Your task to perform on an android device: View the shopping cart on ebay.com. Search for razer blade on ebay.com, select the first entry, add it to the cart, then select checkout. Image 0: 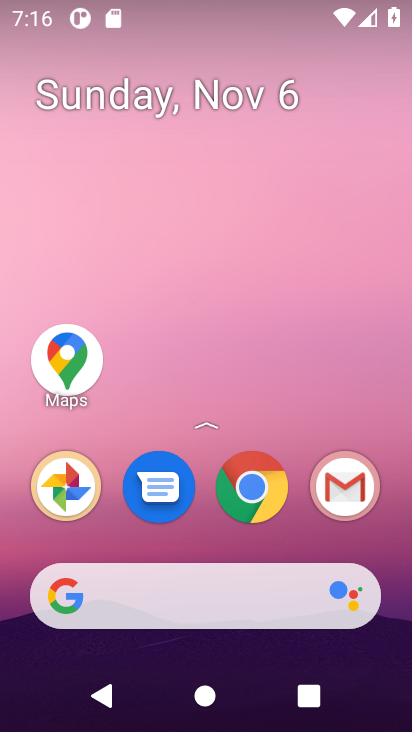
Step 0: click (255, 502)
Your task to perform on an android device: View the shopping cart on ebay.com. Search for razer blade on ebay.com, select the first entry, add it to the cart, then select checkout. Image 1: 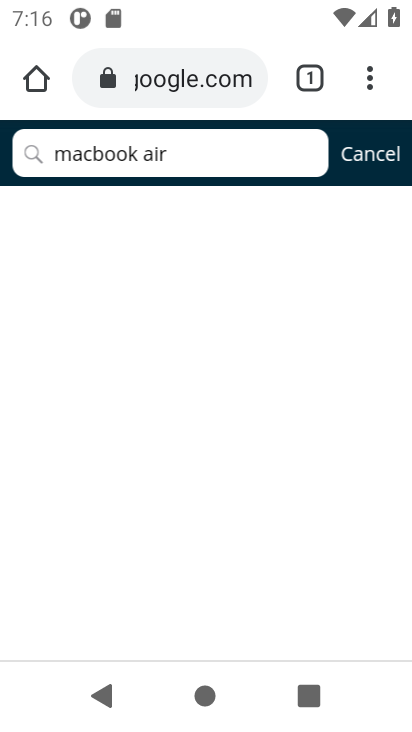
Step 1: click (118, 88)
Your task to perform on an android device: View the shopping cart on ebay.com. Search for razer blade on ebay.com, select the first entry, add it to the cart, then select checkout. Image 2: 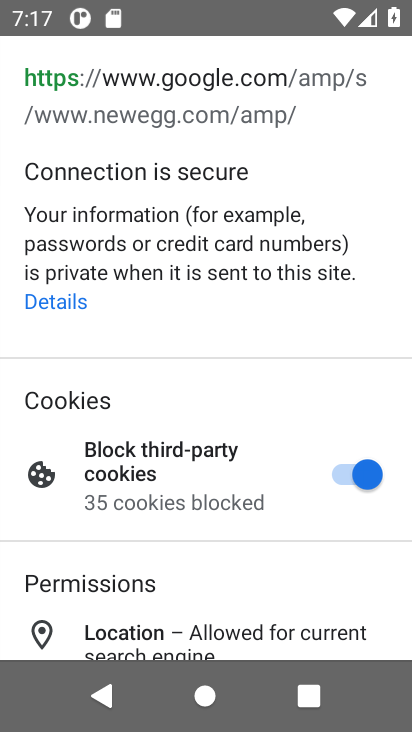
Step 2: press back button
Your task to perform on an android device: View the shopping cart on ebay.com. Search for razer blade on ebay.com, select the first entry, add it to the cart, then select checkout. Image 3: 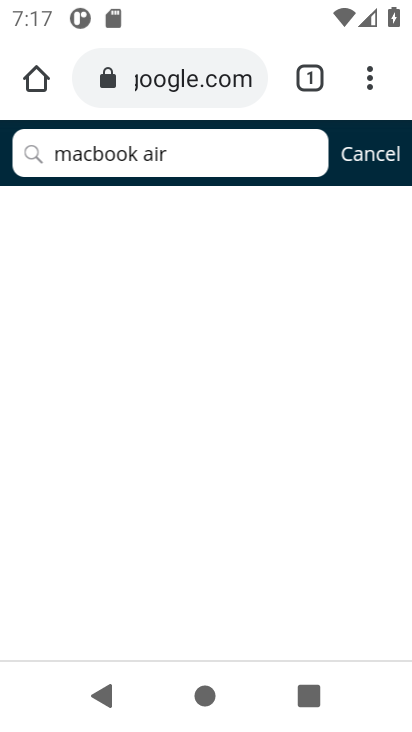
Step 3: click (241, 71)
Your task to perform on an android device: View the shopping cart on ebay.com. Search for razer blade on ebay.com, select the first entry, add it to the cart, then select checkout. Image 4: 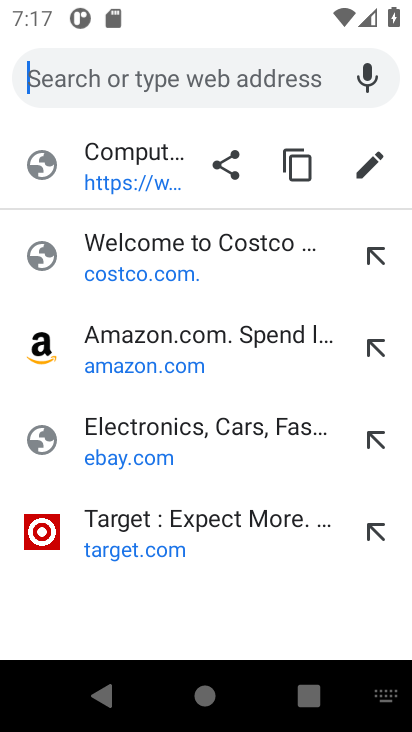
Step 4: click (91, 460)
Your task to perform on an android device: View the shopping cart on ebay.com. Search for razer blade on ebay.com, select the first entry, add it to the cart, then select checkout. Image 5: 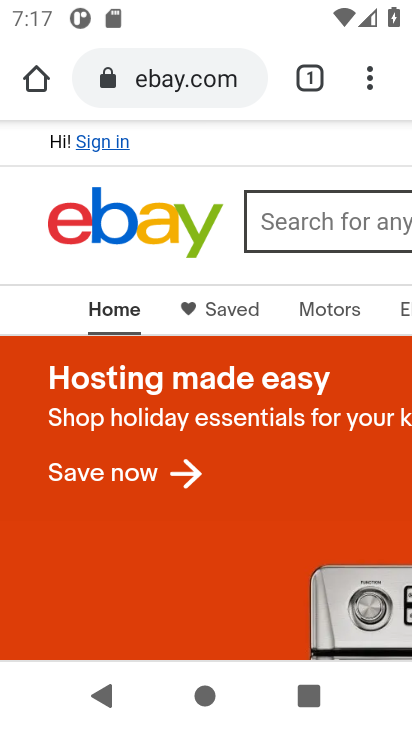
Step 5: click (278, 209)
Your task to perform on an android device: View the shopping cart on ebay.com. Search for razer blade on ebay.com, select the first entry, add it to the cart, then select checkout. Image 6: 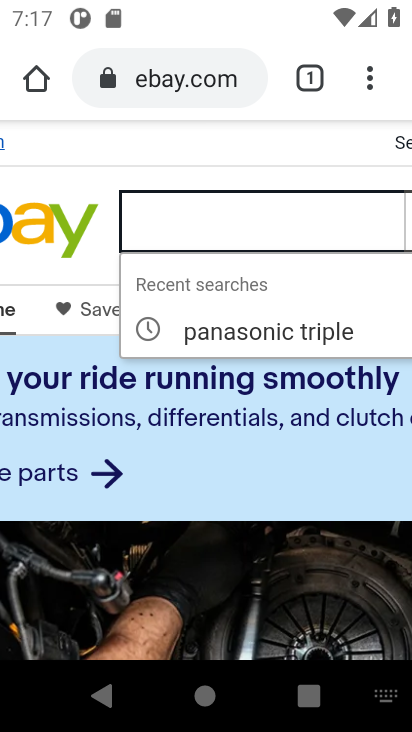
Step 6: drag from (348, 162) to (21, 133)
Your task to perform on an android device: View the shopping cart on ebay.com. Search for razer blade on ebay.com, select the first entry, add it to the cart, then select checkout. Image 7: 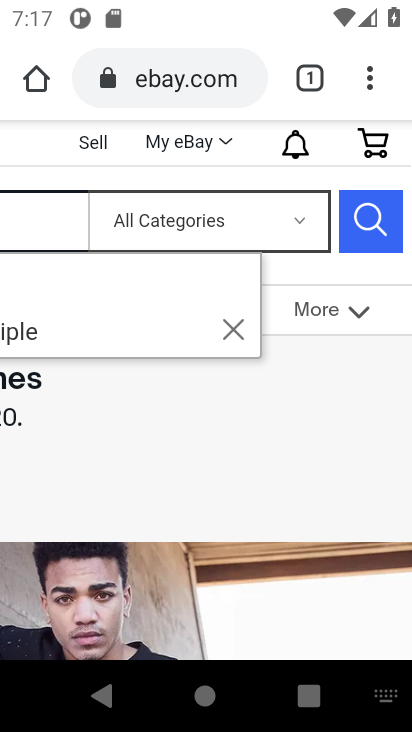
Step 7: click (365, 154)
Your task to perform on an android device: View the shopping cart on ebay.com. Search for razer blade on ebay.com, select the first entry, add it to the cart, then select checkout. Image 8: 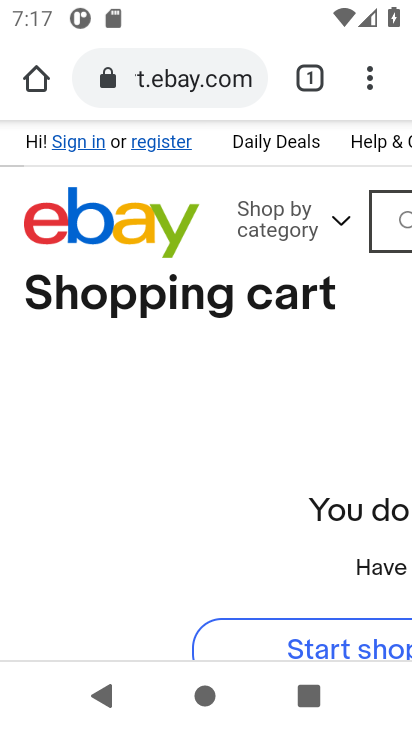
Step 8: drag from (381, 396) to (42, 419)
Your task to perform on an android device: View the shopping cart on ebay.com. Search for razer blade on ebay.com, select the first entry, add it to the cart, then select checkout. Image 9: 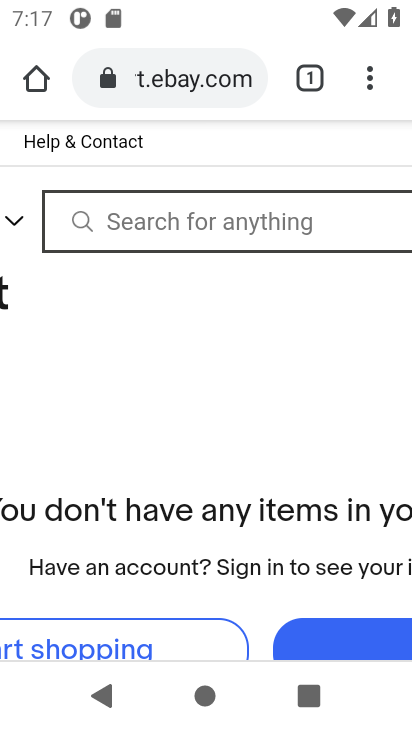
Step 9: drag from (317, 386) to (200, 377)
Your task to perform on an android device: View the shopping cart on ebay.com. Search for razer blade on ebay.com, select the first entry, add it to the cart, then select checkout. Image 10: 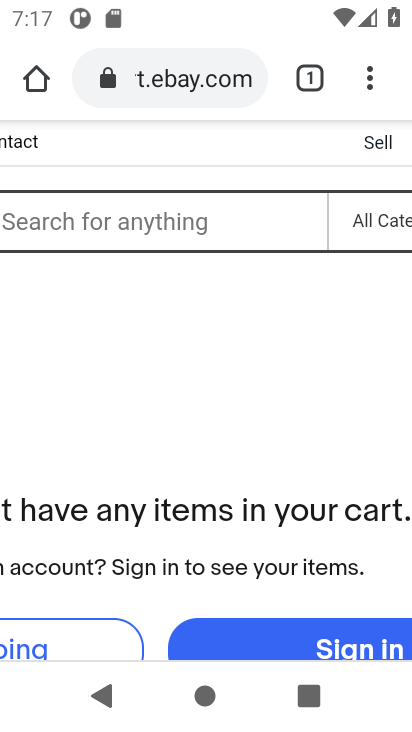
Step 10: click (118, 233)
Your task to perform on an android device: View the shopping cart on ebay.com. Search for razer blade on ebay.com, select the first entry, add it to the cart, then select checkout. Image 11: 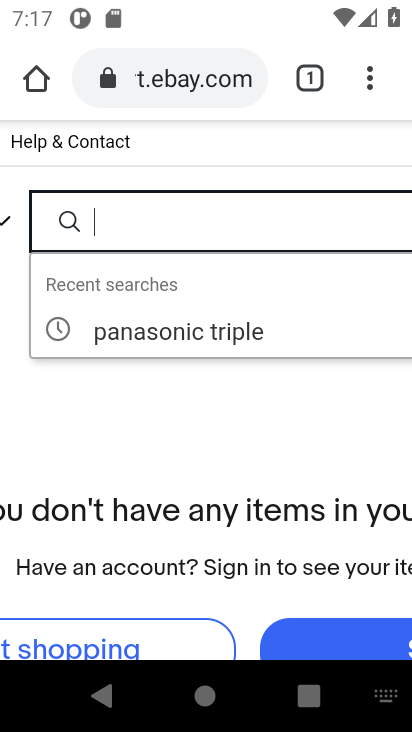
Step 11: type "razer blade"
Your task to perform on an android device: View the shopping cart on ebay.com. Search for razer blade on ebay.com, select the first entry, add it to the cart, then select checkout. Image 12: 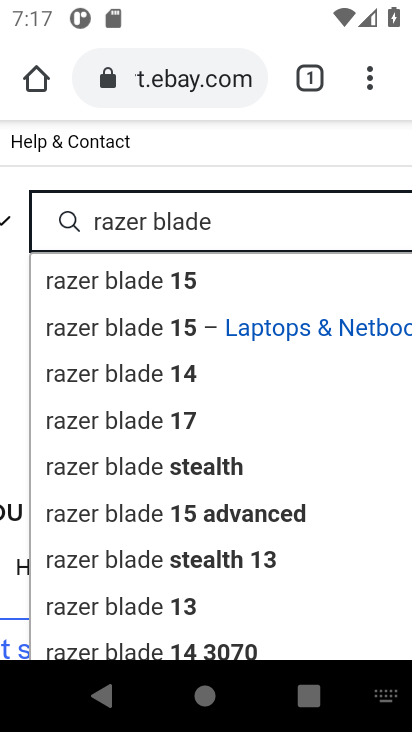
Step 12: drag from (337, 159) to (59, 173)
Your task to perform on an android device: View the shopping cart on ebay.com. Search for razer blade on ebay.com, select the first entry, add it to the cart, then select checkout. Image 13: 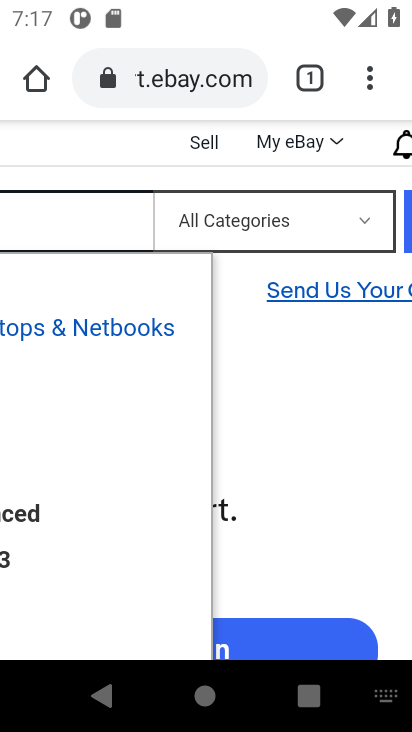
Step 13: drag from (343, 181) to (100, 170)
Your task to perform on an android device: View the shopping cart on ebay.com. Search for razer blade on ebay.com, select the first entry, add it to the cart, then select checkout. Image 14: 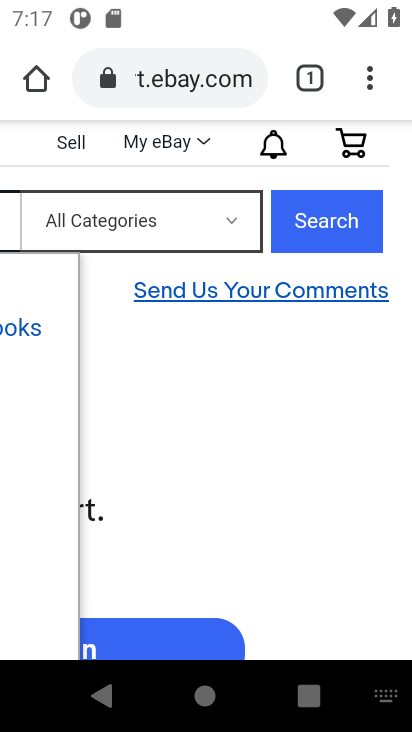
Step 14: click (359, 217)
Your task to perform on an android device: View the shopping cart on ebay.com. Search for razer blade on ebay.com, select the first entry, add it to the cart, then select checkout. Image 15: 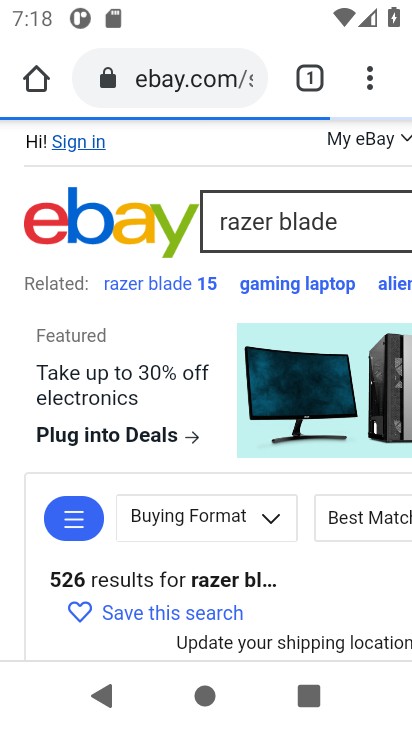
Step 15: drag from (155, 633) to (200, 137)
Your task to perform on an android device: View the shopping cart on ebay.com. Search for razer blade on ebay.com, select the first entry, add it to the cart, then select checkout. Image 16: 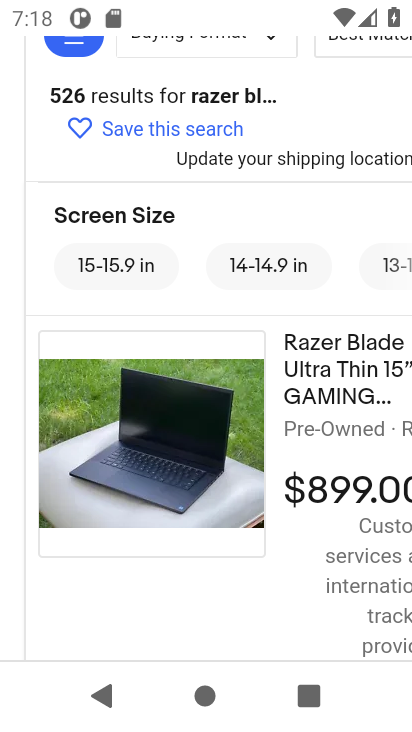
Step 16: drag from (336, 429) to (311, 153)
Your task to perform on an android device: View the shopping cart on ebay.com. Search for razer blade on ebay.com, select the first entry, add it to the cart, then select checkout. Image 17: 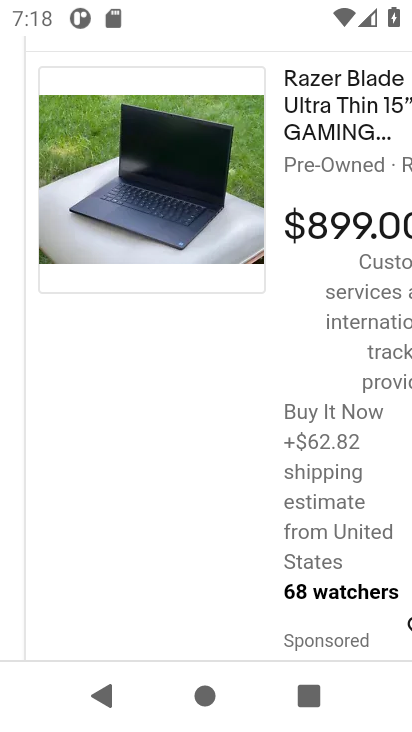
Step 17: drag from (184, 375) to (128, 374)
Your task to perform on an android device: View the shopping cart on ebay.com. Search for razer blade on ebay.com, select the first entry, add it to the cart, then select checkout. Image 18: 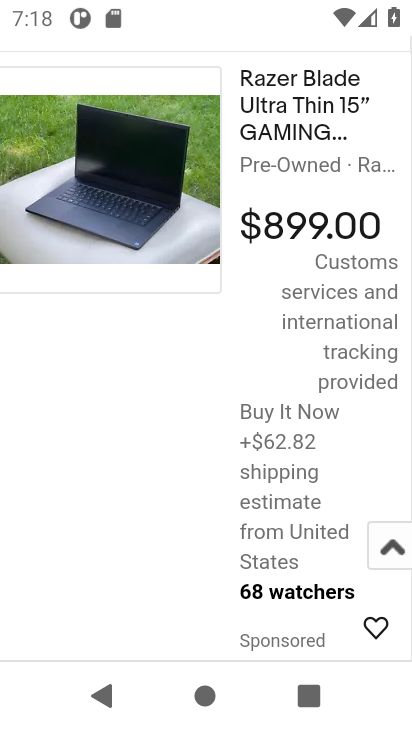
Step 18: drag from (391, 347) to (206, 405)
Your task to perform on an android device: View the shopping cart on ebay.com. Search for razer blade on ebay.com, select the first entry, add it to the cart, then select checkout. Image 19: 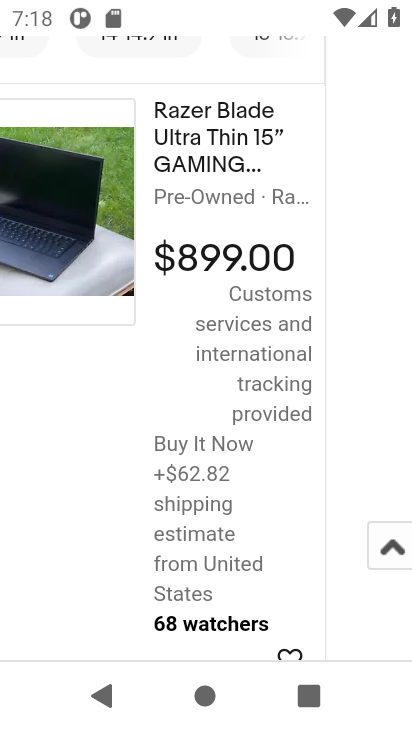
Step 19: drag from (177, 373) to (192, 74)
Your task to perform on an android device: View the shopping cart on ebay.com. Search for razer blade on ebay.com, select the first entry, add it to the cart, then select checkout. Image 20: 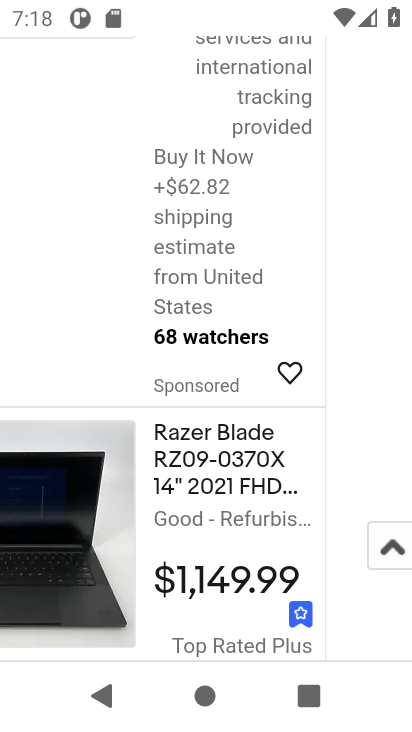
Step 20: click (241, 119)
Your task to perform on an android device: View the shopping cart on ebay.com. Search for razer blade on ebay.com, select the first entry, add it to the cart, then select checkout. Image 21: 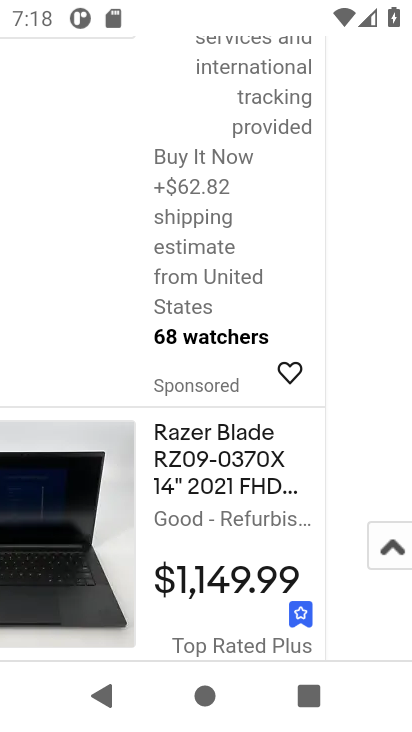
Step 21: drag from (160, 96) to (148, 311)
Your task to perform on an android device: View the shopping cart on ebay.com. Search for razer blade on ebay.com, select the first entry, add it to the cart, then select checkout. Image 22: 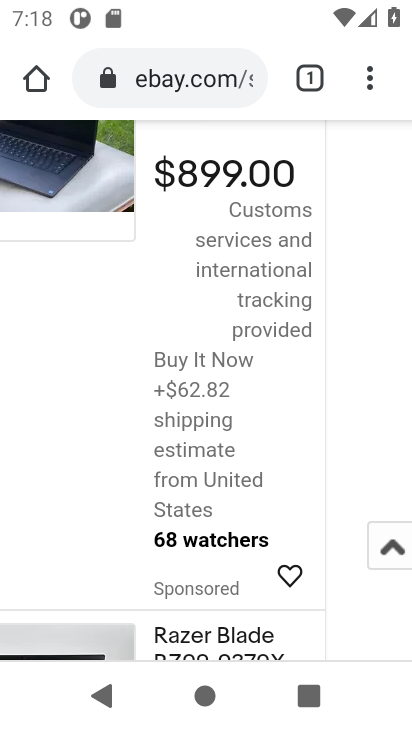
Step 22: drag from (219, 186) to (262, 392)
Your task to perform on an android device: View the shopping cart on ebay.com. Search for razer blade on ebay.com, select the first entry, add it to the cart, then select checkout. Image 23: 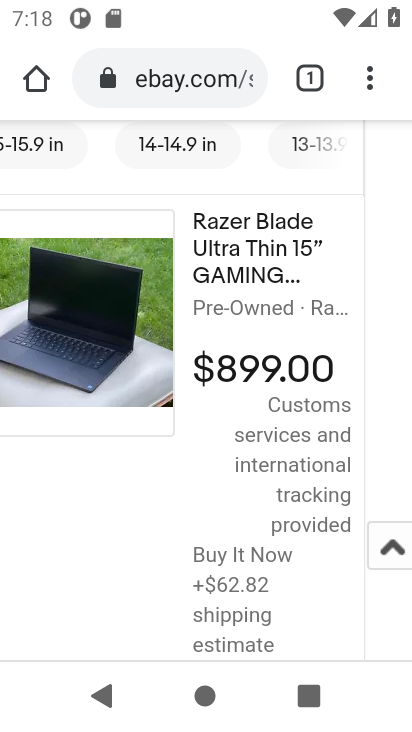
Step 23: click (240, 241)
Your task to perform on an android device: View the shopping cart on ebay.com. Search for razer blade on ebay.com, select the first entry, add it to the cart, then select checkout. Image 24: 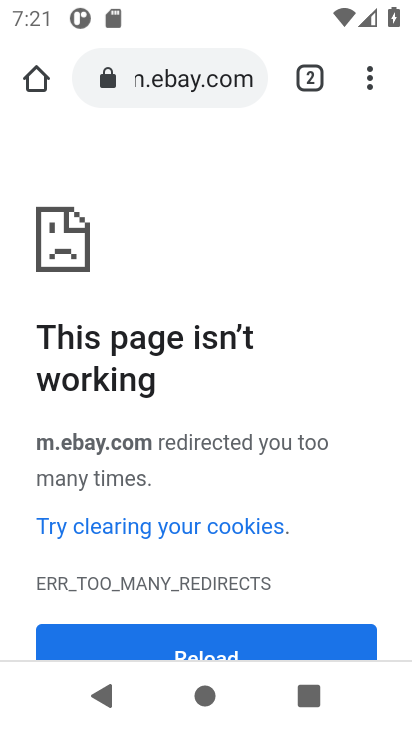
Step 24: task complete